Your task to perform on an android device: refresh tabs in the chrome app Image 0: 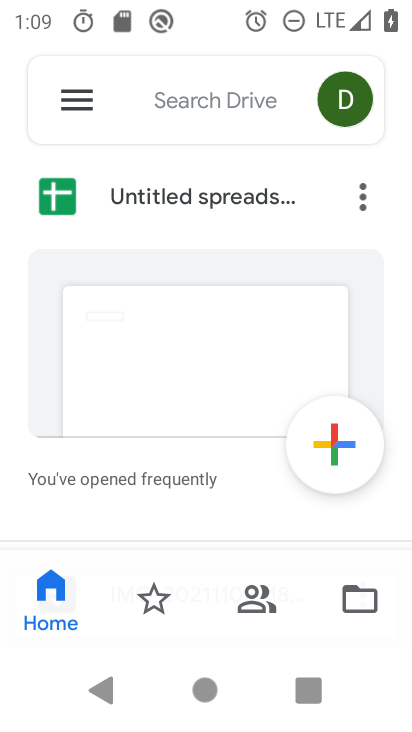
Step 0: press home button
Your task to perform on an android device: refresh tabs in the chrome app Image 1: 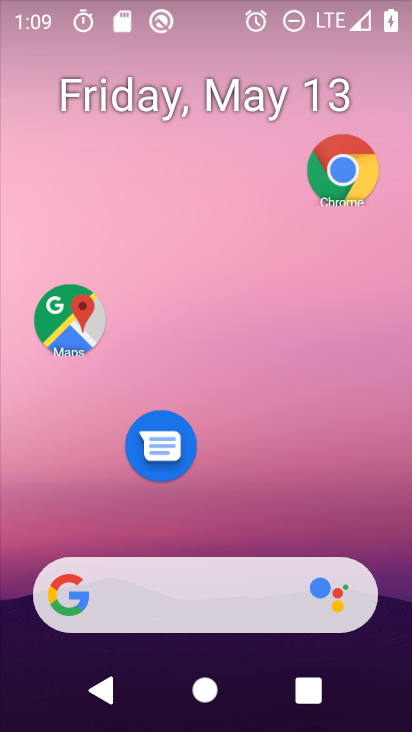
Step 1: drag from (302, 628) to (324, 1)
Your task to perform on an android device: refresh tabs in the chrome app Image 2: 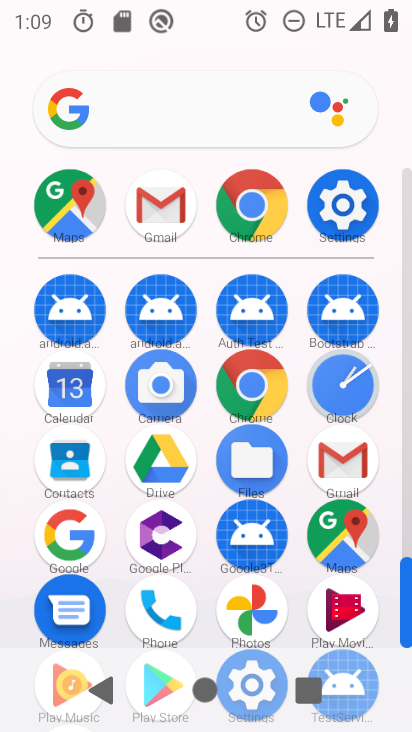
Step 2: click (254, 380)
Your task to perform on an android device: refresh tabs in the chrome app Image 3: 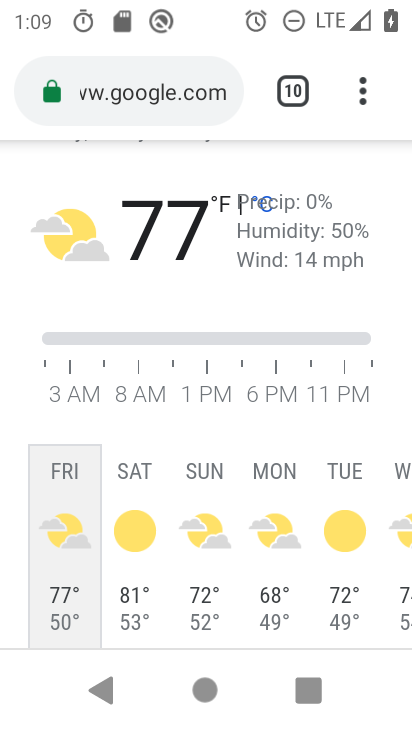
Step 3: task complete